Your task to perform on an android device: Open accessibility settings Image 0: 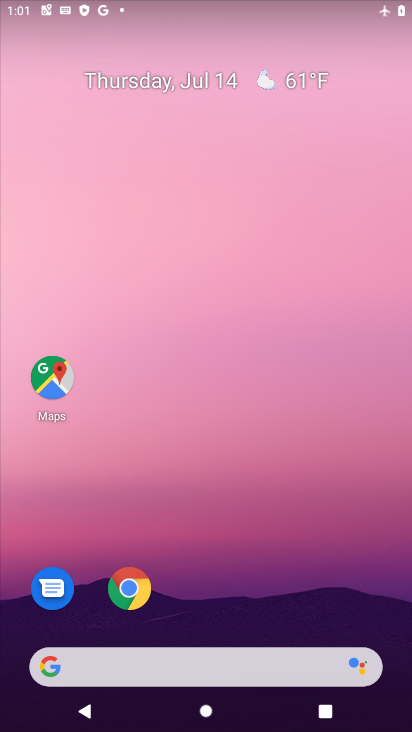
Step 0: drag from (218, 617) to (228, 86)
Your task to perform on an android device: Open accessibility settings Image 1: 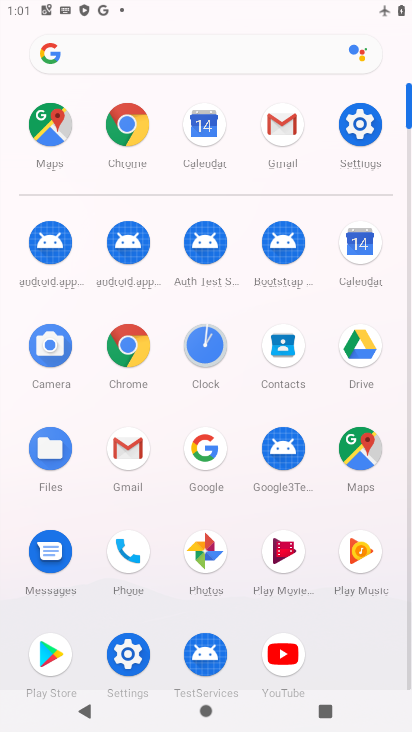
Step 1: click (135, 665)
Your task to perform on an android device: Open accessibility settings Image 2: 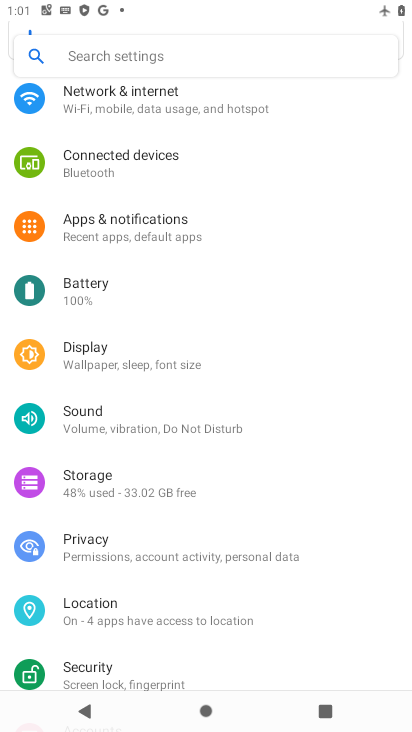
Step 2: drag from (162, 592) to (139, 348)
Your task to perform on an android device: Open accessibility settings Image 3: 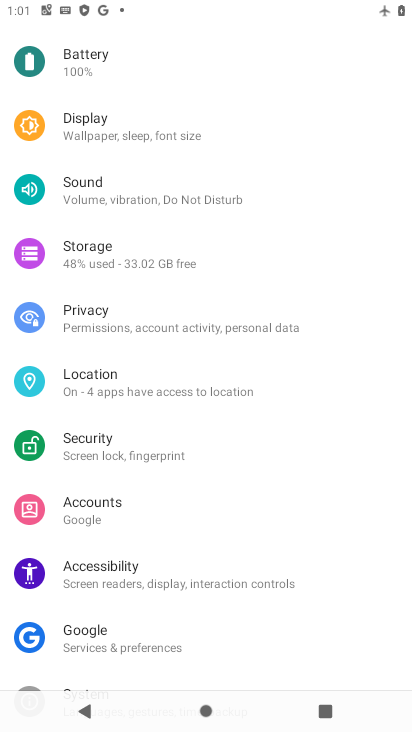
Step 3: click (145, 573)
Your task to perform on an android device: Open accessibility settings Image 4: 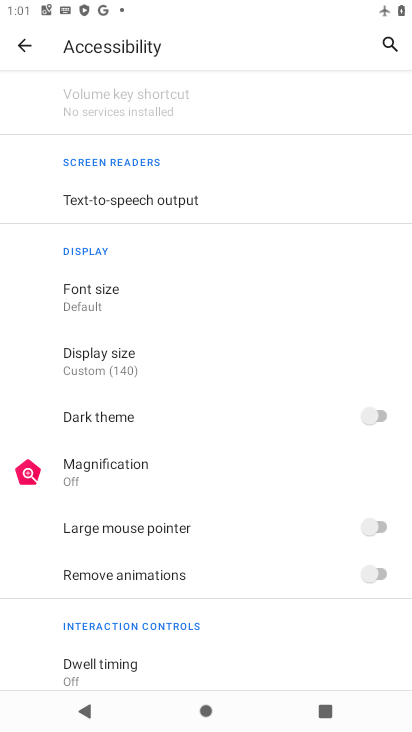
Step 4: task complete